Your task to perform on an android device: Go to wifi settings Image 0: 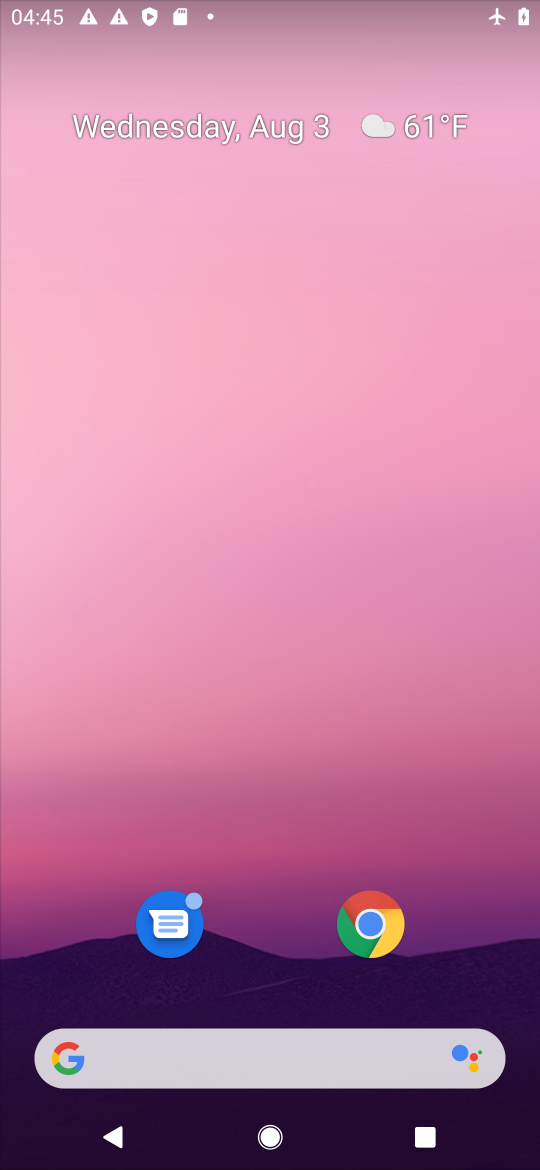
Step 0: drag from (289, 946) to (300, 228)
Your task to perform on an android device: Go to wifi settings Image 1: 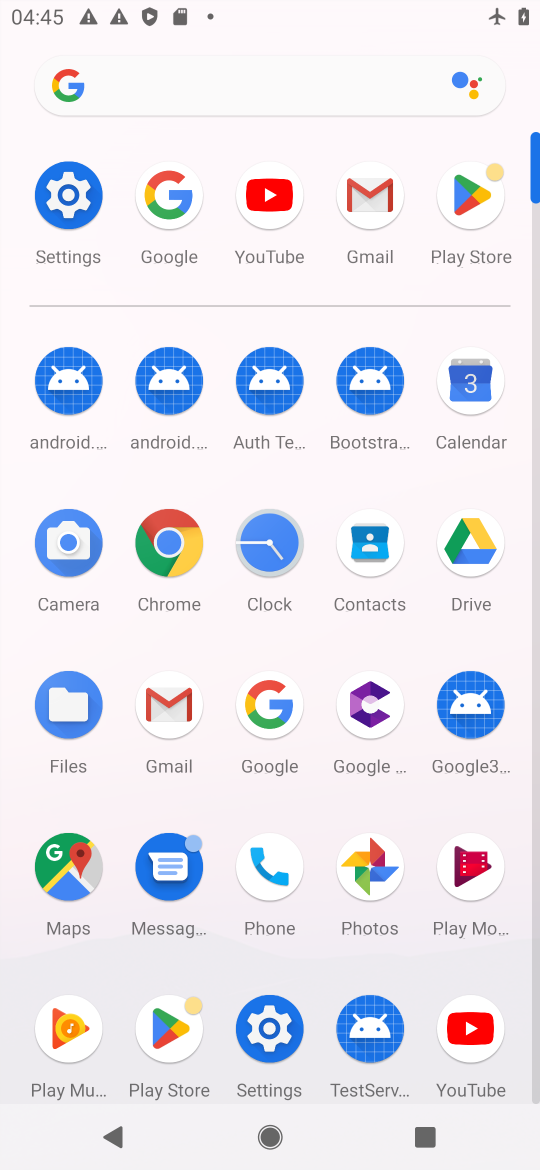
Step 1: click (99, 196)
Your task to perform on an android device: Go to wifi settings Image 2: 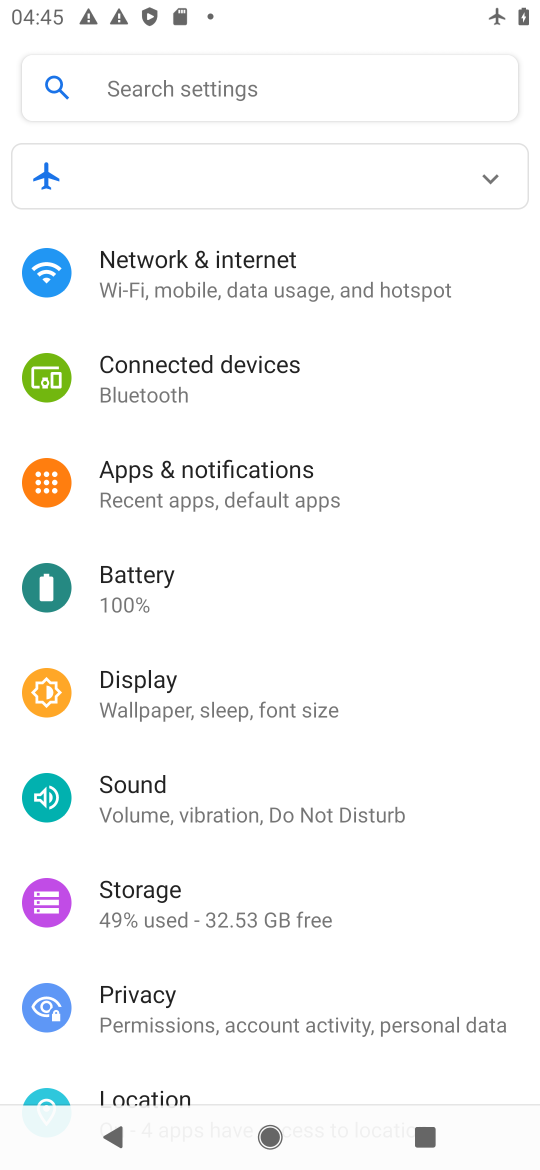
Step 2: click (223, 286)
Your task to perform on an android device: Go to wifi settings Image 3: 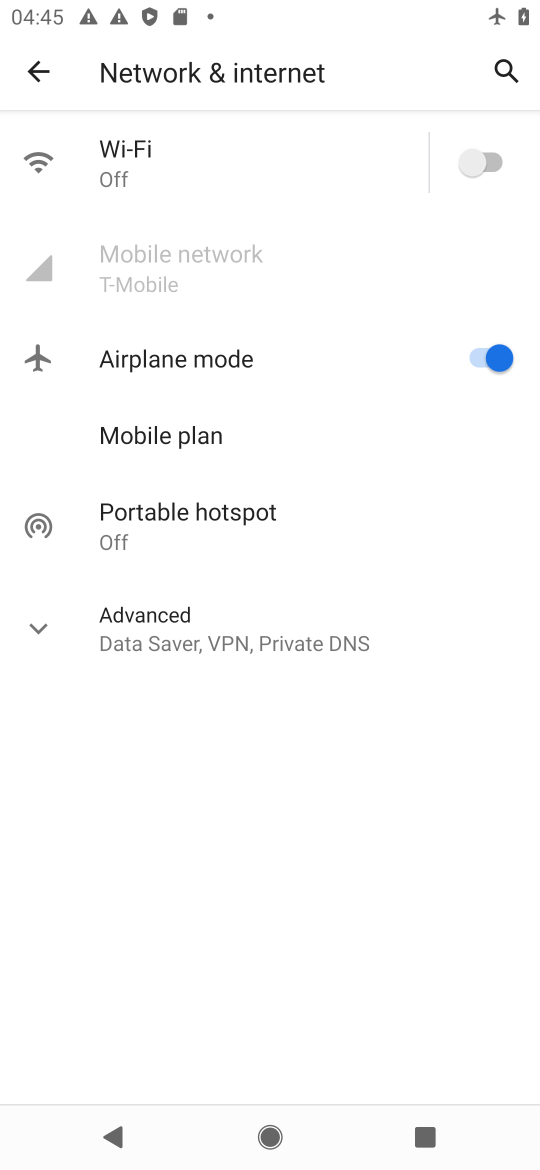
Step 3: click (191, 162)
Your task to perform on an android device: Go to wifi settings Image 4: 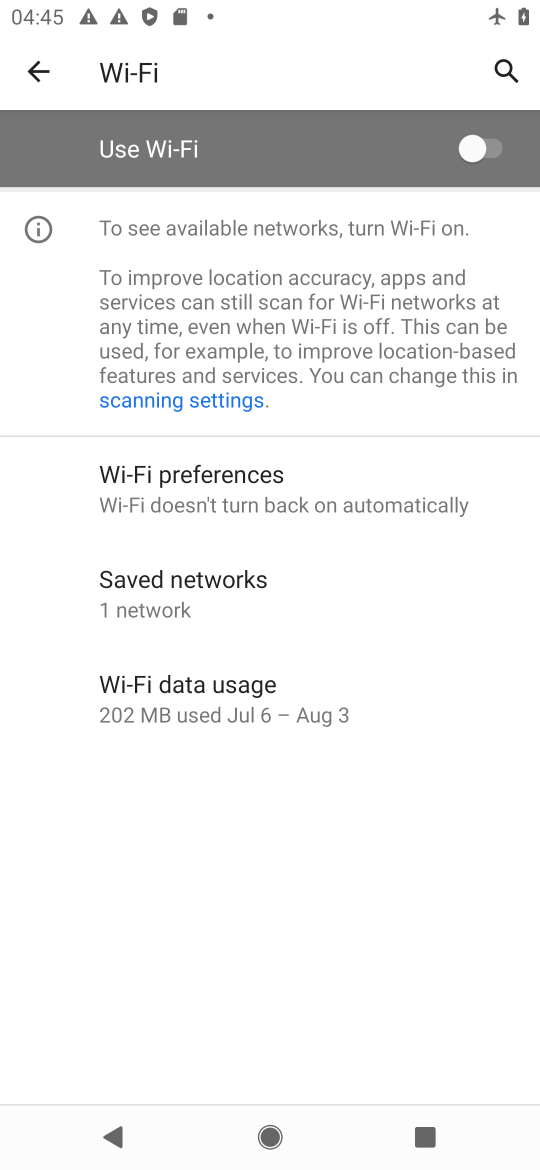
Step 4: task complete